Your task to perform on an android device: Go to Google Image 0: 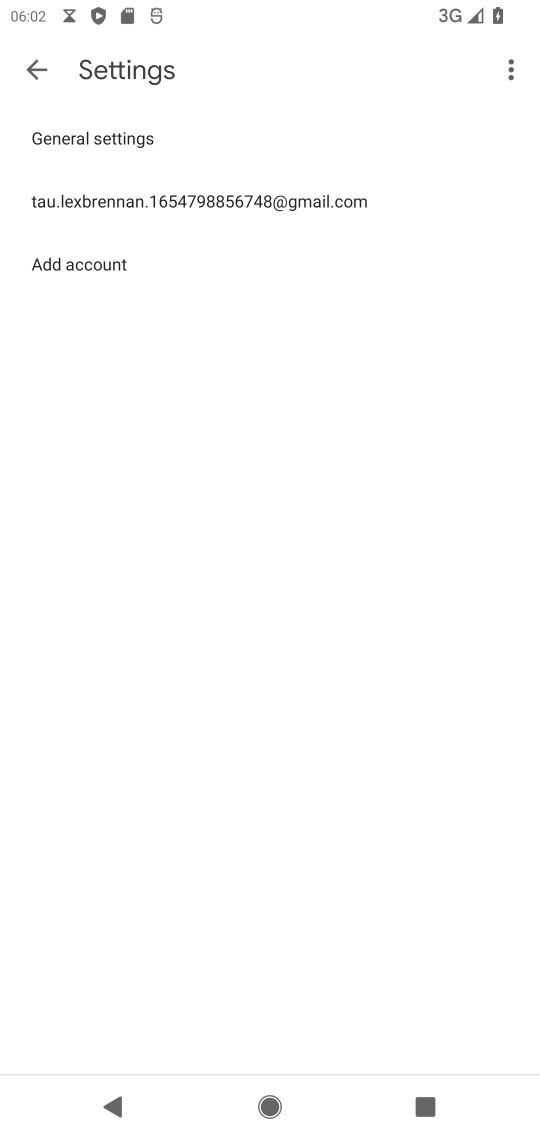
Step 0: press home button
Your task to perform on an android device: Go to Google Image 1: 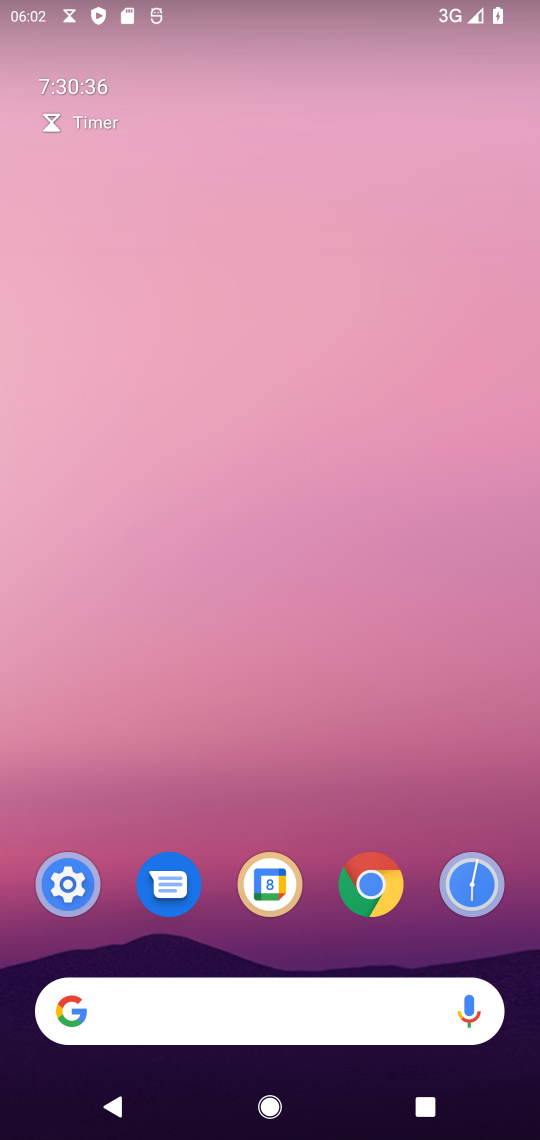
Step 1: drag from (322, 815) to (214, 86)
Your task to perform on an android device: Go to Google Image 2: 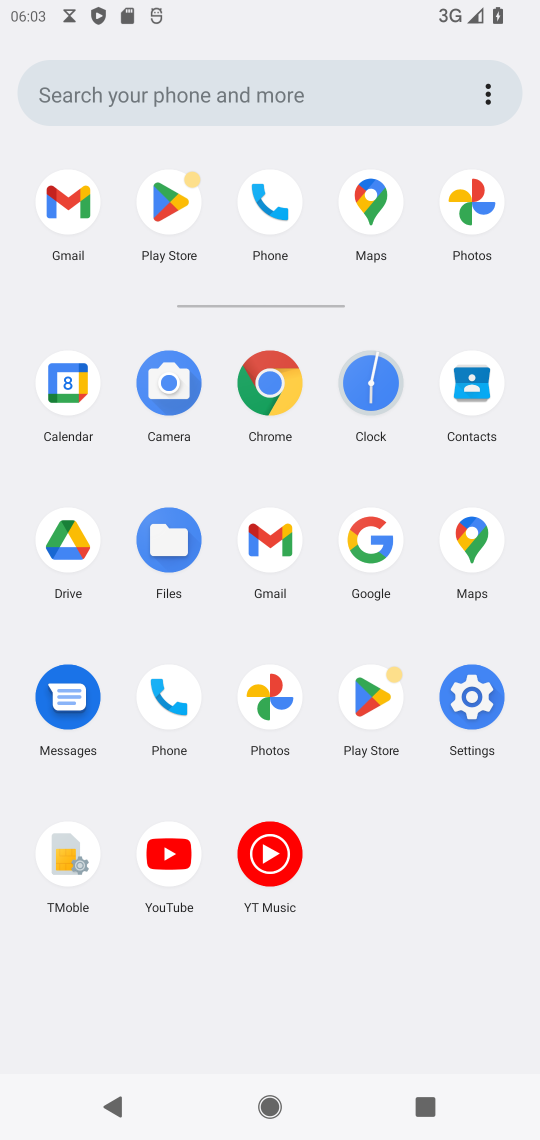
Step 2: click (370, 559)
Your task to perform on an android device: Go to Google Image 3: 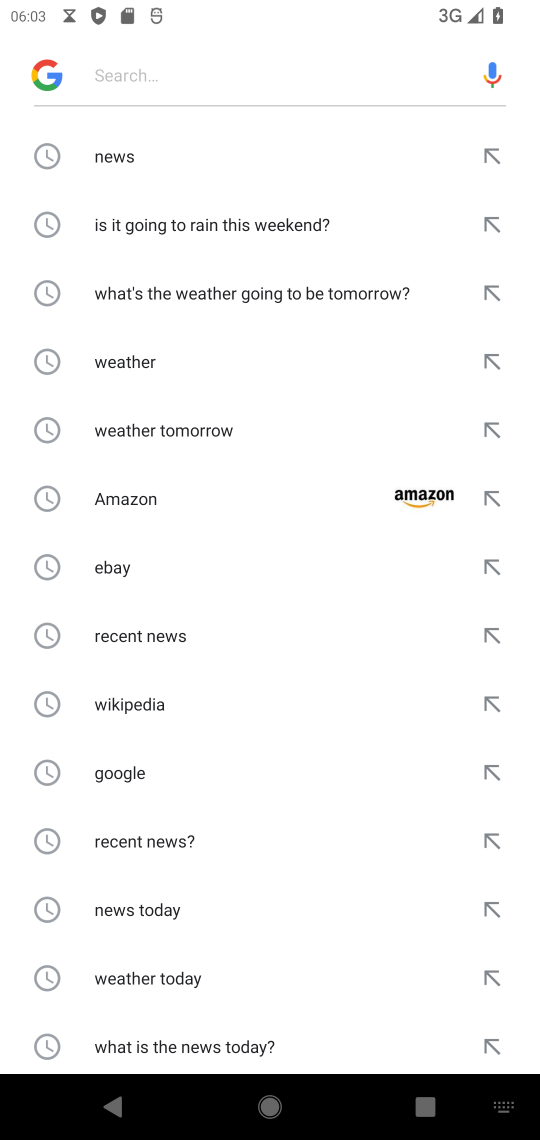
Step 3: task complete